Your task to perform on an android device: toggle priority inbox in the gmail app Image 0: 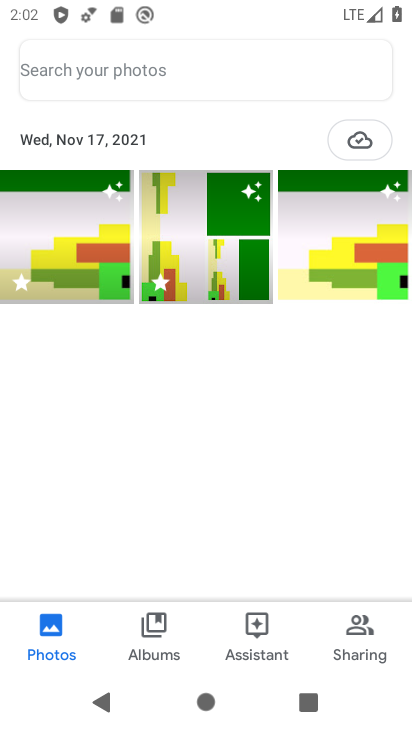
Step 0: press home button
Your task to perform on an android device: toggle priority inbox in the gmail app Image 1: 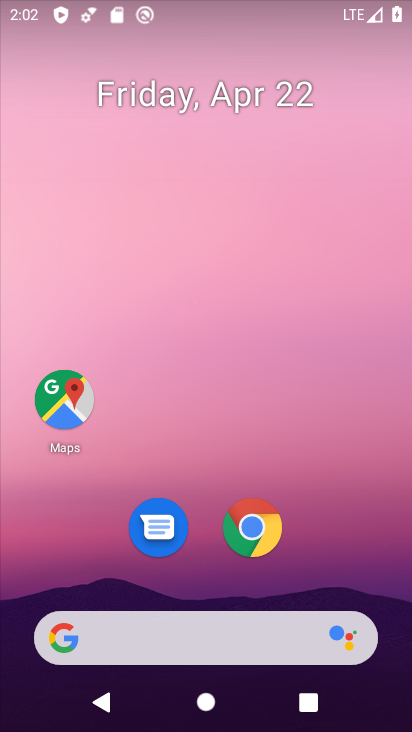
Step 1: drag from (334, 462) to (217, 85)
Your task to perform on an android device: toggle priority inbox in the gmail app Image 2: 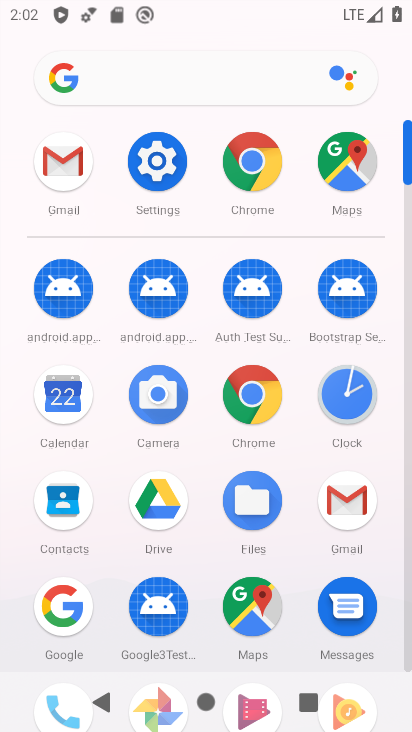
Step 2: click (67, 165)
Your task to perform on an android device: toggle priority inbox in the gmail app Image 3: 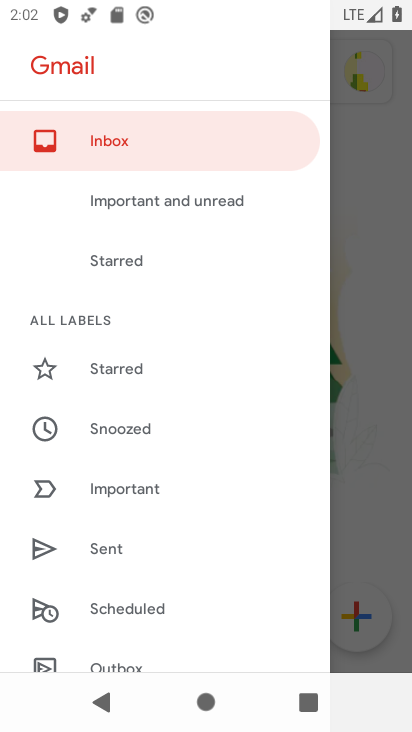
Step 3: drag from (148, 609) to (122, 137)
Your task to perform on an android device: toggle priority inbox in the gmail app Image 4: 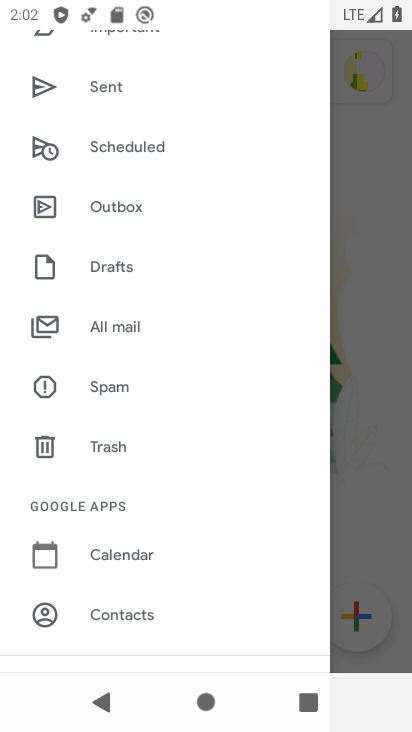
Step 4: drag from (162, 590) to (173, 191)
Your task to perform on an android device: toggle priority inbox in the gmail app Image 5: 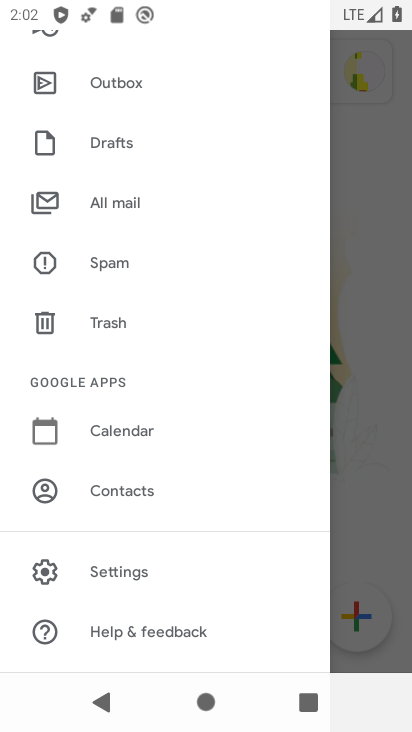
Step 5: click (132, 571)
Your task to perform on an android device: toggle priority inbox in the gmail app Image 6: 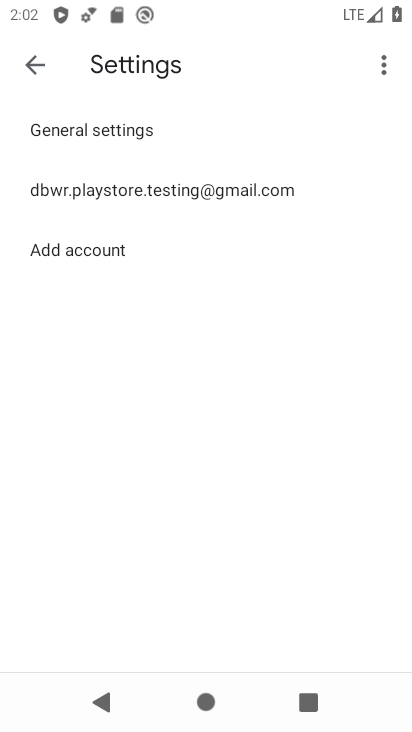
Step 6: click (188, 195)
Your task to perform on an android device: toggle priority inbox in the gmail app Image 7: 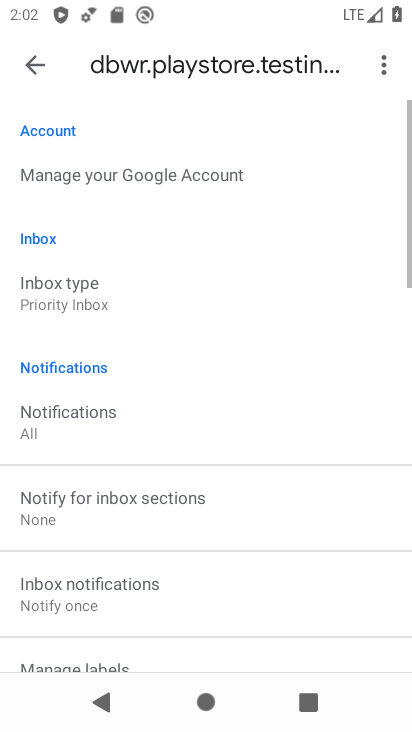
Step 7: click (79, 306)
Your task to perform on an android device: toggle priority inbox in the gmail app Image 8: 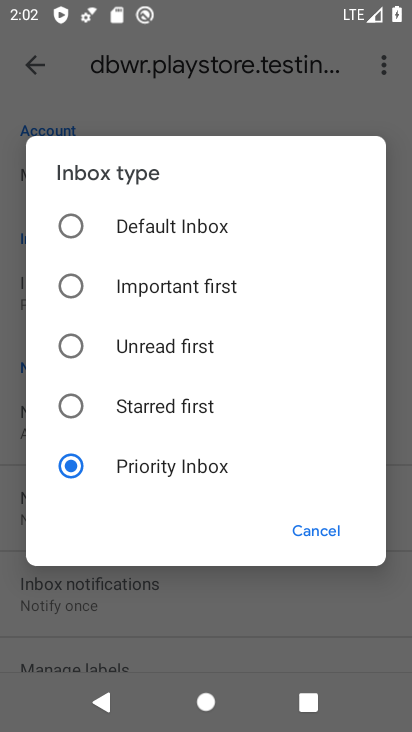
Step 8: click (126, 223)
Your task to perform on an android device: toggle priority inbox in the gmail app Image 9: 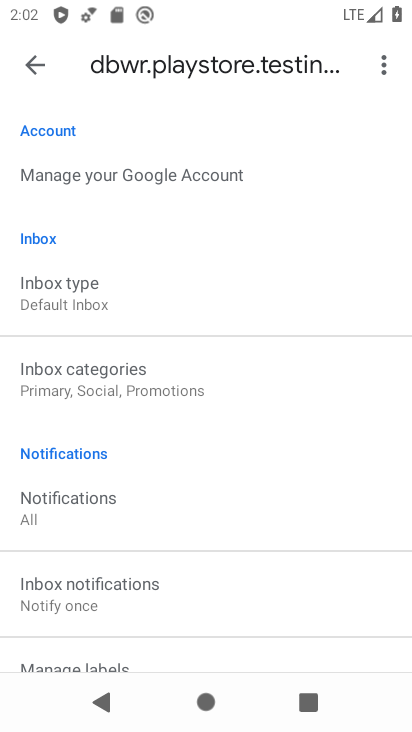
Step 9: task complete